Your task to perform on an android device: toggle sleep mode Image 0: 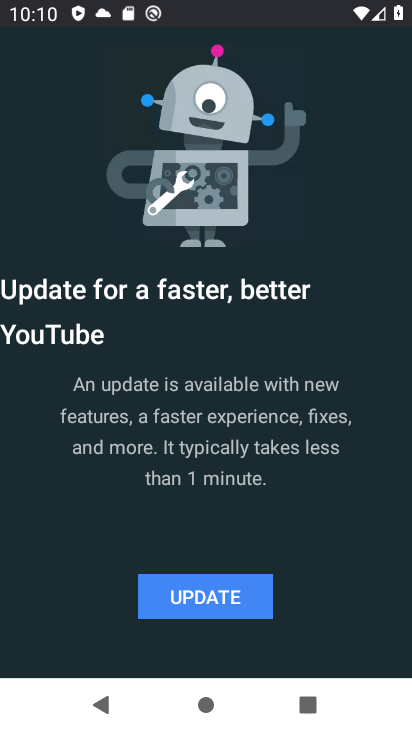
Step 0: press back button
Your task to perform on an android device: toggle sleep mode Image 1: 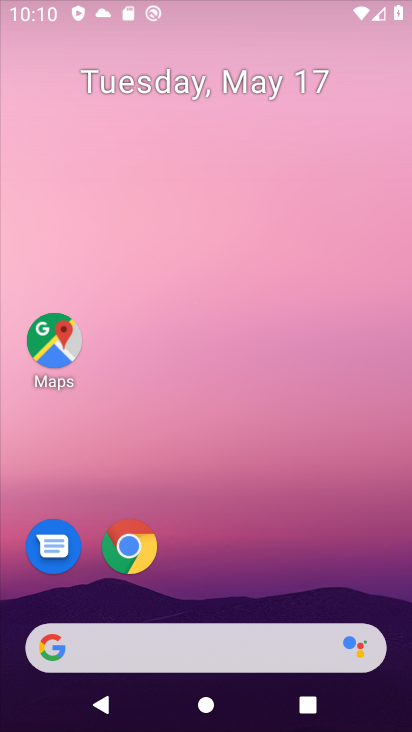
Step 1: drag from (246, 509) to (241, 298)
Your task to perform on an android device: toggle sleep mode Image 2: 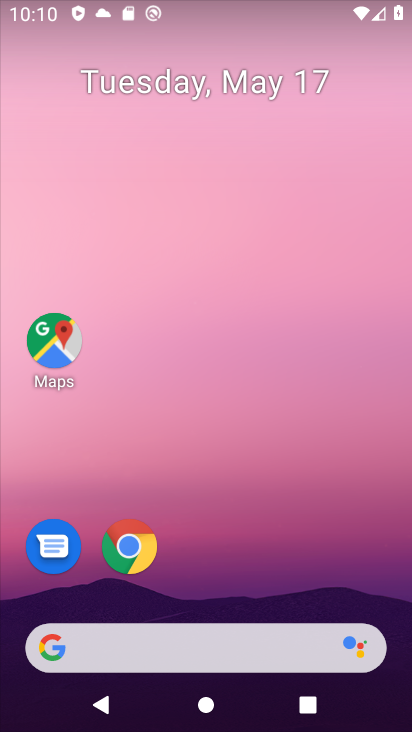
Step 2: drag from (286, 569) to (269, 243)
Your task to perform on an android device: toggle sleep mode Image 3: 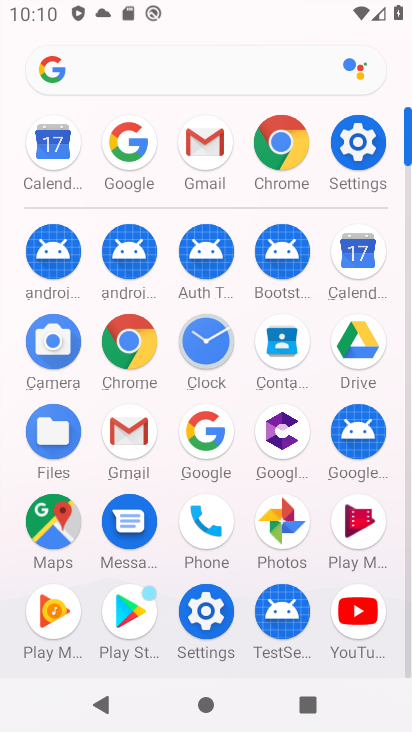
Step 3: click (351, 137)
Your task to perform on an android device: toggle sleep mode Image 4: 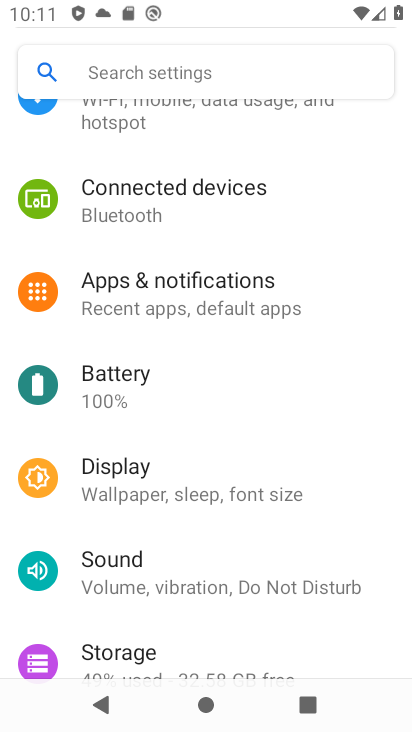
Step 4: task complete